Your task to perform on an android device: turn off picture-in-picture Image 0: 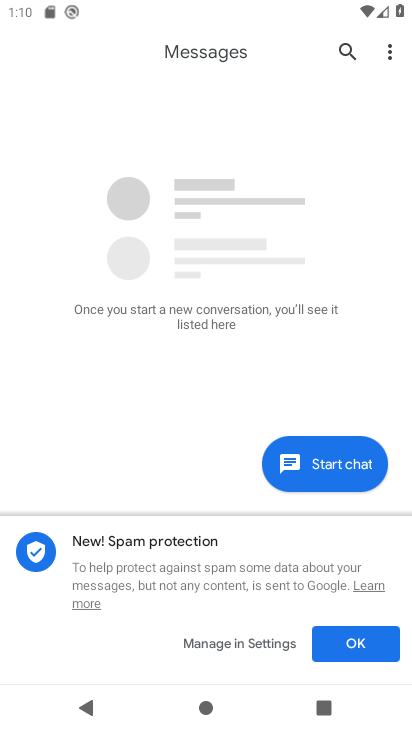
Step 0: press home button
Your task to perform on an android device: turn off picture-in-picture Image 1: 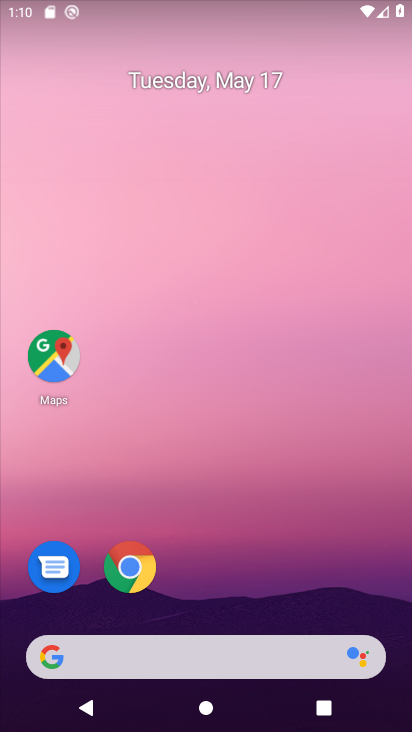
Step 1: drag from (233, 493) to (258, 0)
Your task to perform on an android device: turn off picture-in-picture Image 2: 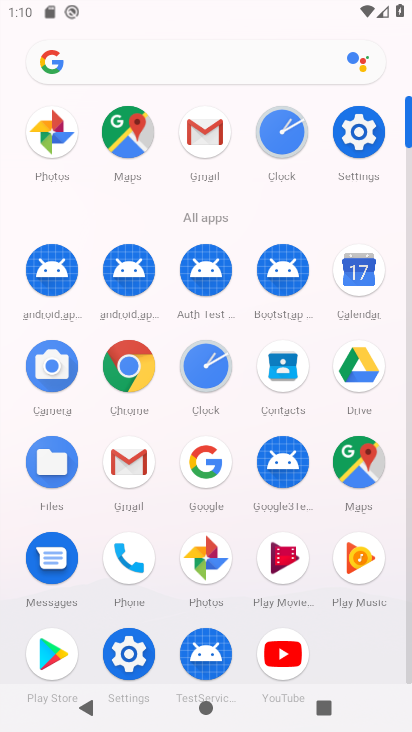
Step 2: click (349, 166)
Your task to perform on an android device: turn off picture-in-picture Image 3: 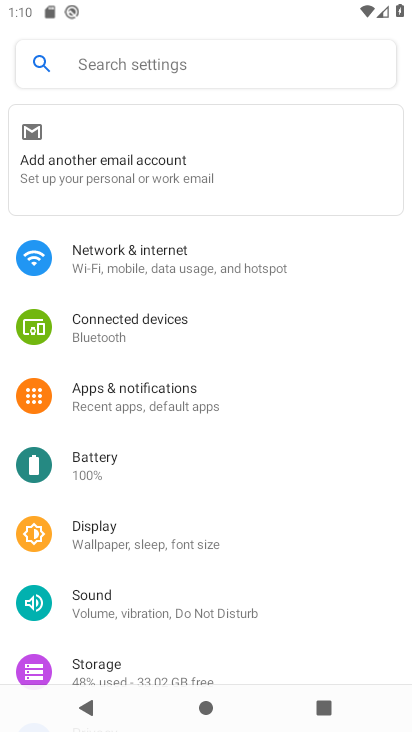
Step 3: click (127, 404)
Your task to perform on an android device: turn off picture-in-picture Image 4: 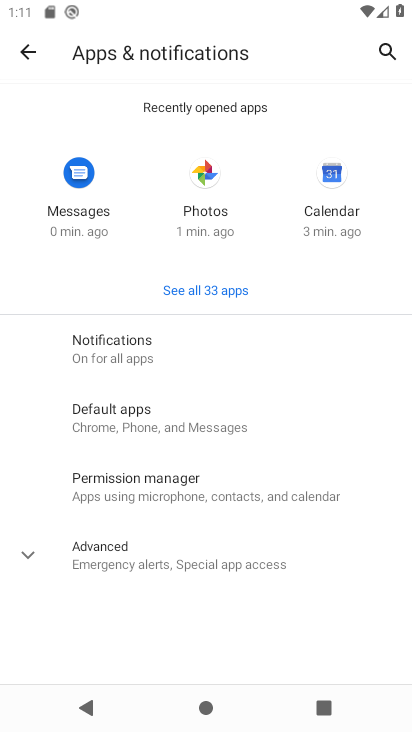
Step 4: click (168, 573)
Your task to perform on an android device: turn off picture-in-picture Image 5: 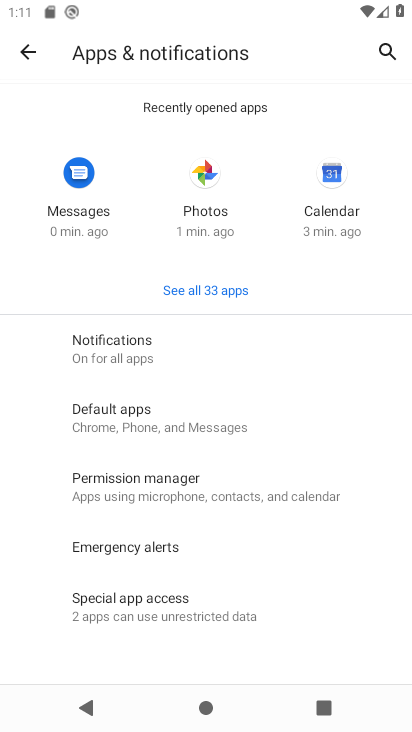
Step 5: click (136, 615)
Your task to perform on an android device: turn off picture-in-picture Image 6: 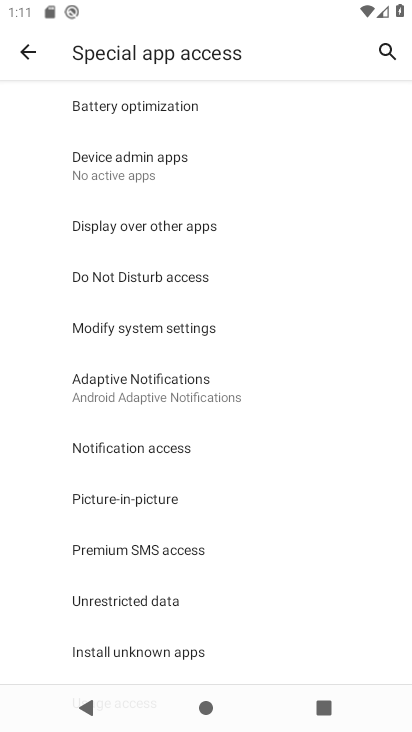
Step 6: click (121, 495)
Your task to perform on an android device: turn off picture-in-picture Image 7: 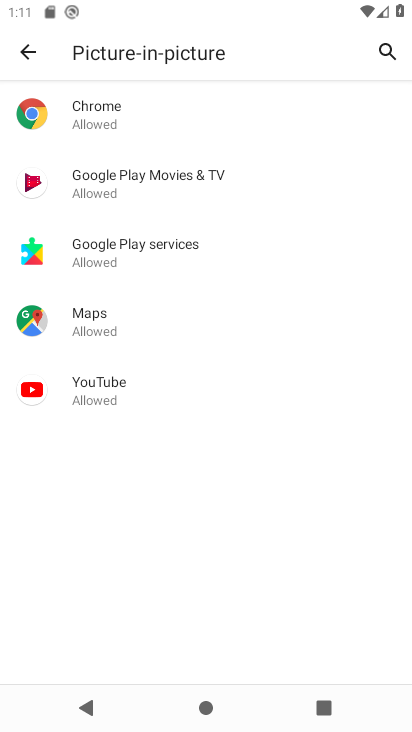
Step 7: click (139, 496)
Your task to perform on an android device: turn off picture-in-picture Image 8: 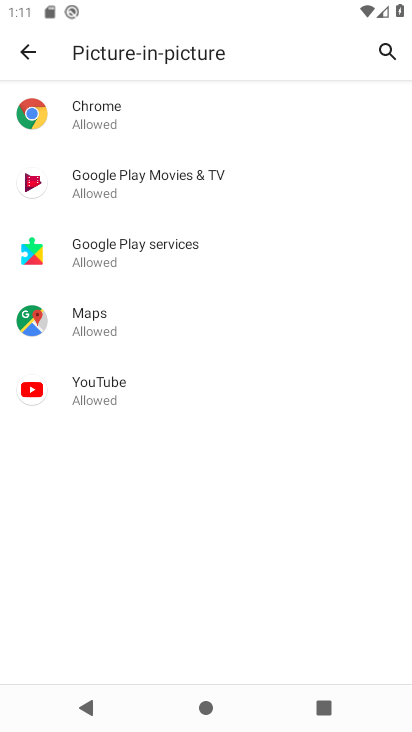
Step 8: click (100, 99)
Your task to perform on an android device: turn off picture-in-picture Image 9: 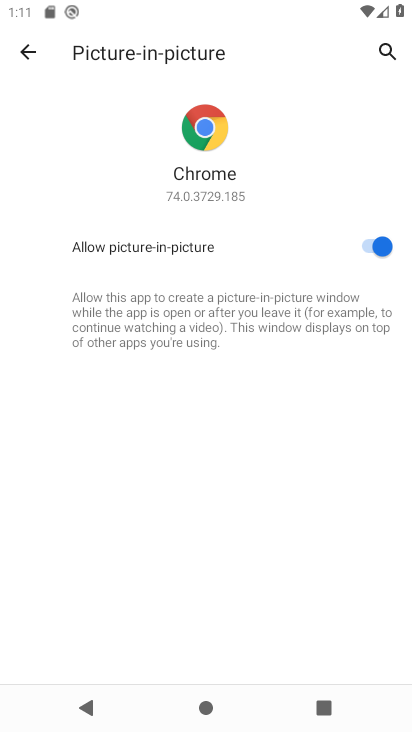
Step 9: click (366, 247)
Your task to perform on an android device: turn off picture-in-picture Image 10: 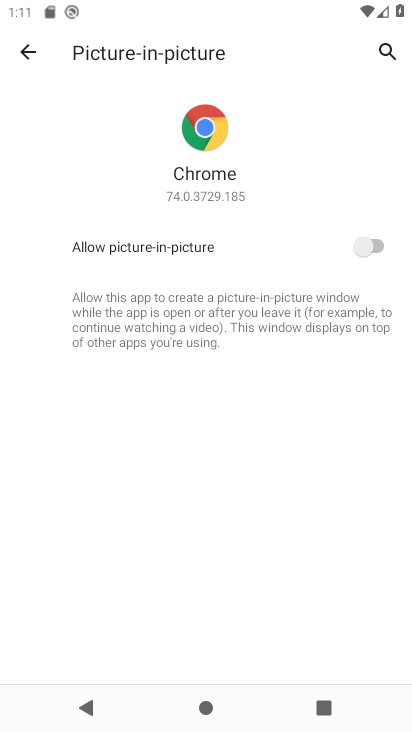
Step 10: task complete